Your task to perform on an android device: turn off wifi Image 0: 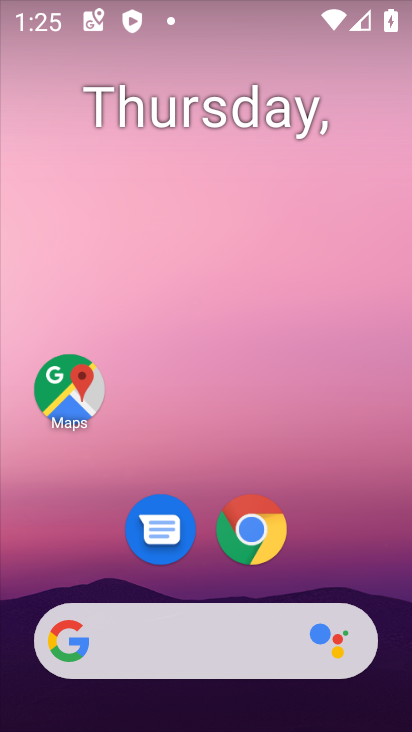
Step 0: drag from (339, 572) to (352, 240)
Your task to perform on an android device: turn off wifi Image 1: 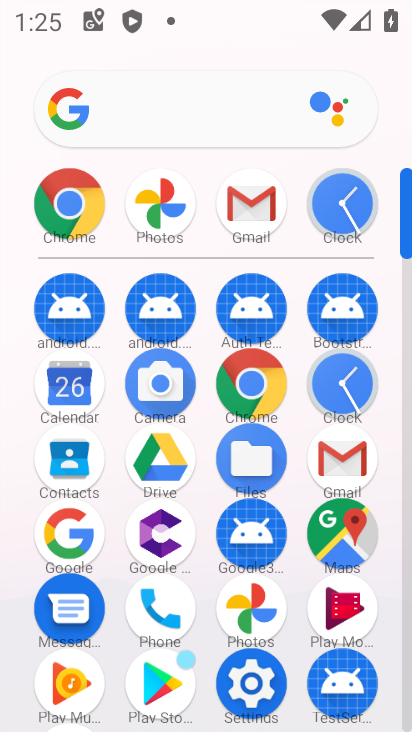
Step 1: click (266, 712)
Your task to perform on an android device: turn off wifi Image 2: 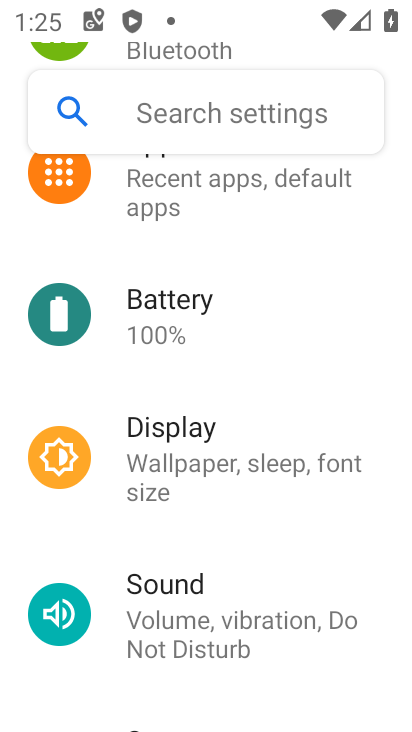
Step 2: drag from (274, 304) to (254, 614)
Your task to perform on an android device: turn off wifi Image 3: 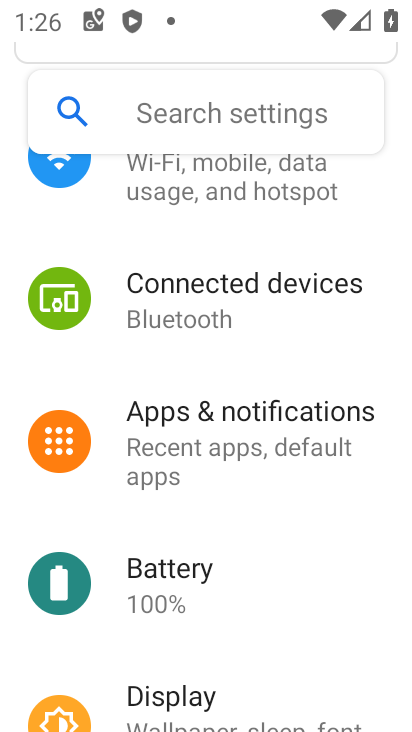
Step 3: drag from (268, 276) to (265, 620)
Your task to perform on an android device: turn off wifi Image 4: 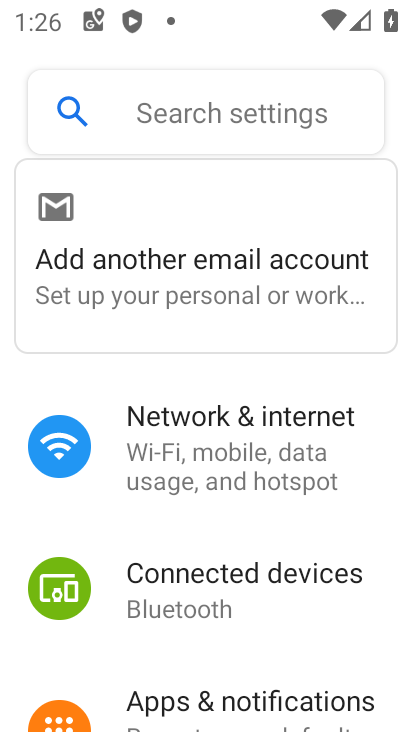
Step 4: click (255, 451)
Your task to perform on an android device: turn off wifi Image 5: 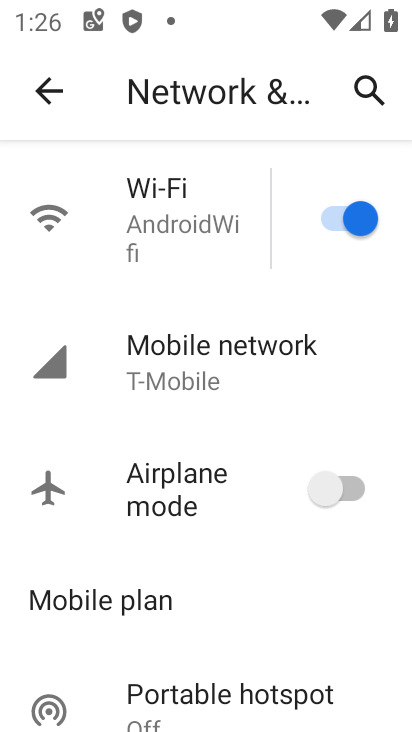
Step 5: click (332, 215)
Your task to perform on an android device: turn off wifi Image 6: 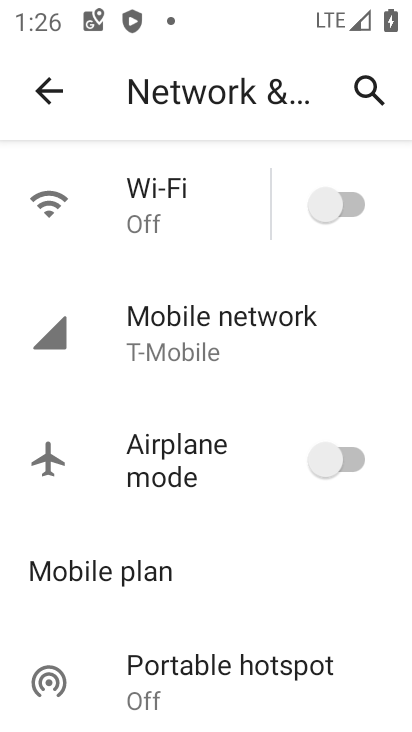
Step 6: task complete